Your task to perform on an android device: open sync settings in chrome Image 0: 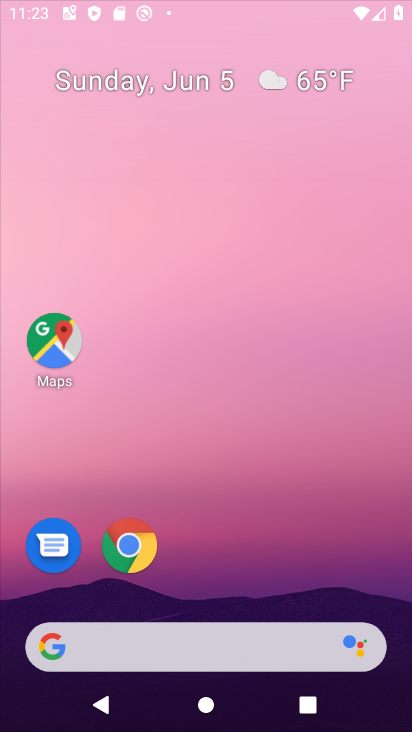
Step 0: click (65, 361)
Your task to perform on an android device: open sync settings in chrome Image 1: 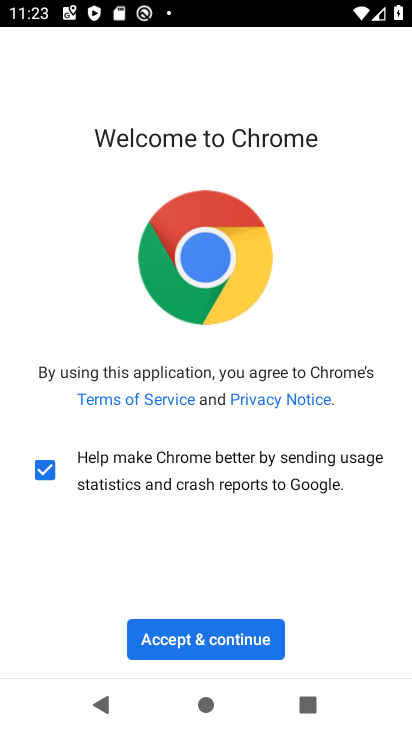
Step 1: click (167, 647)
Your task to perform on an android device: open sync settings in chrome Image 2: 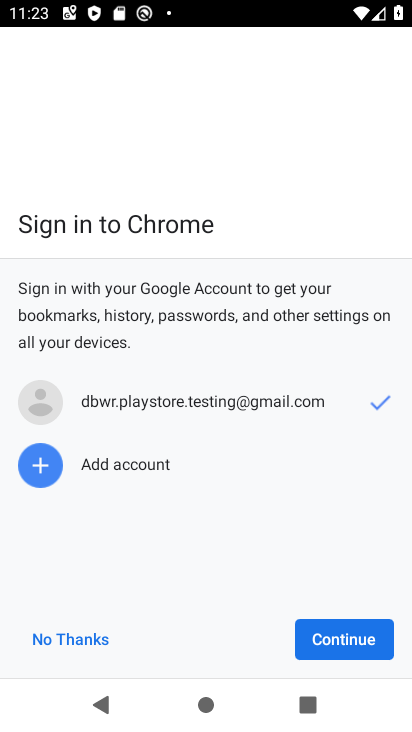
Step 2: click (354, 638)
Your task to perform on an android device: open sync settings in chrome Image 3: 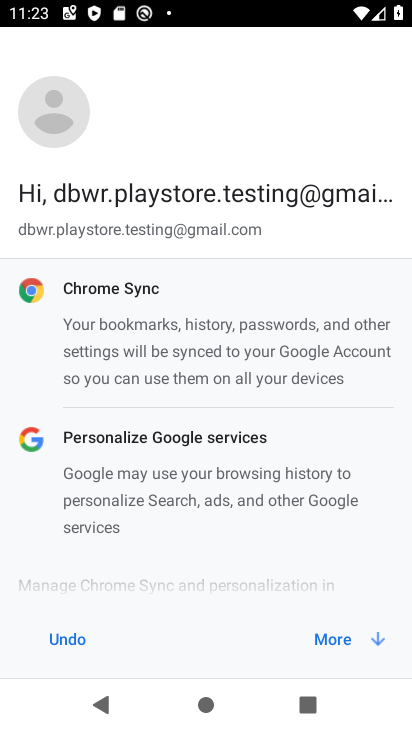
Step 3: click (352, 638)
Your task to perform on an android device: open sync settings in chrome Image 4: 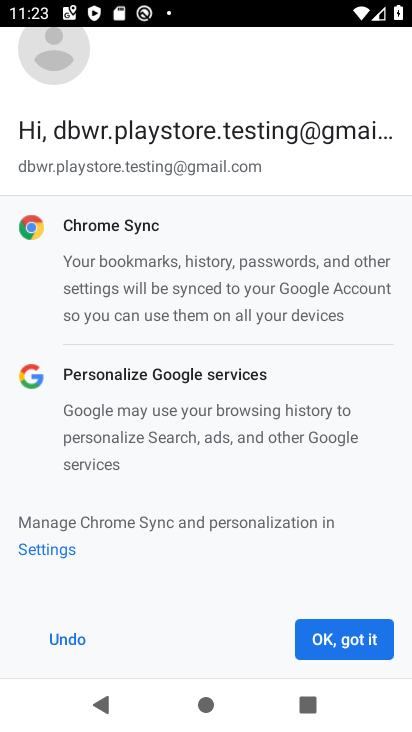
Step 4: click (351, 638)
Your task to perform on an android device: open sync settings in chrome Image 5: 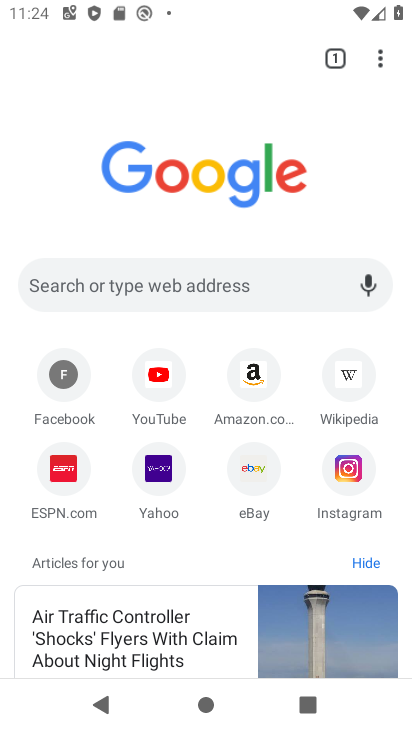
Step 5: click (387, 62)
Your task to perform on an android device: open sync settings in chrome Image 6: 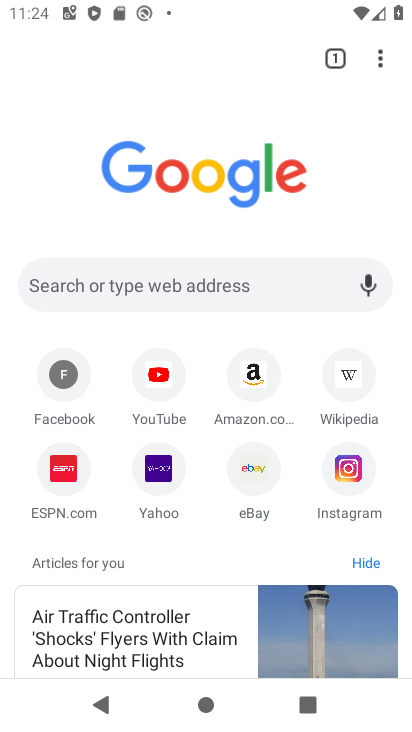
Step 6: click (378, 55)
Your task to perform on an android device: open sync settings in chrome Image 7: 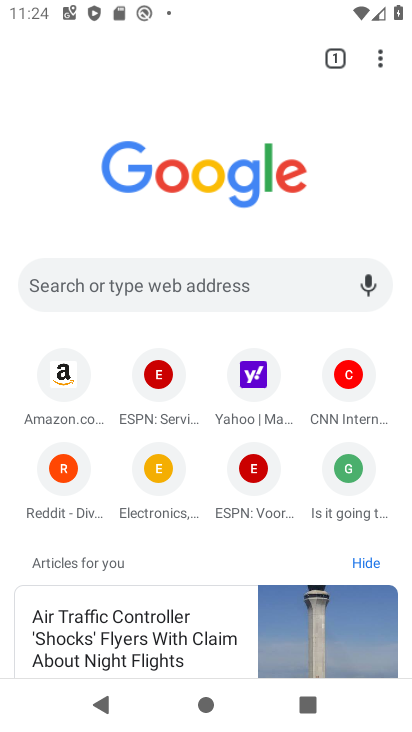
Step 7: click (380, 63)
Your task to perform on an android device: open sync settings in chrome Image 8: 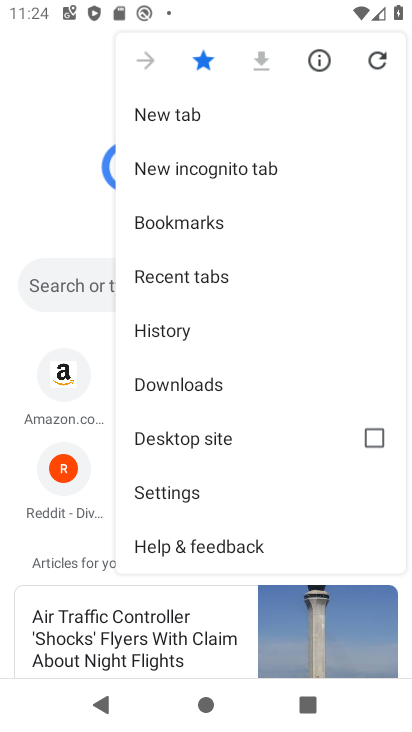
Step 8: click (167, 493)
Your task to perform on an android device: open sync settings in chrome Image 9: 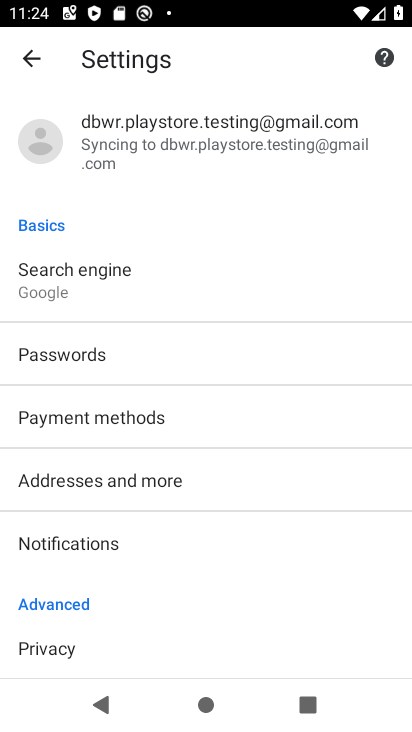
Step 9: click (140, 135)
Your task to perform on an android device: open sync settings in chrome Image 10: 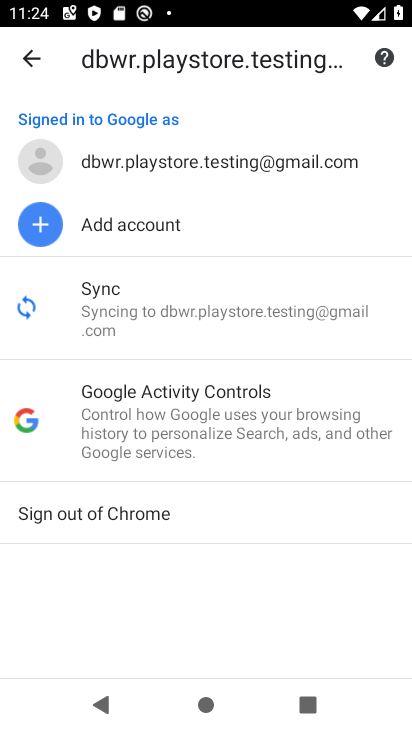
Step 10: task complete